Your task to perform on an android device: Open sound settings Image 0: 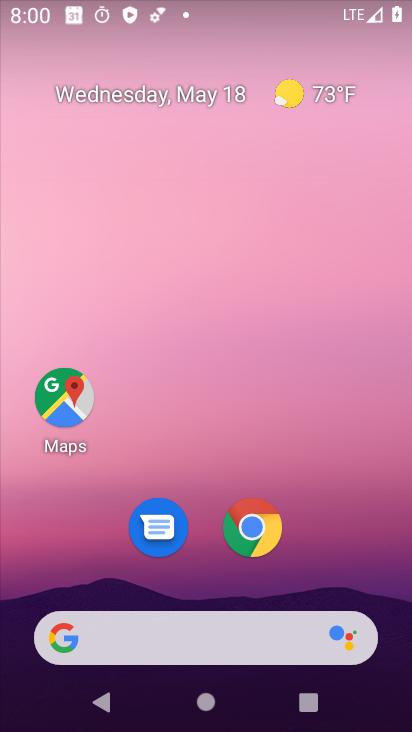
Step 0: drag from (399, 596) to (396, 4)
Your task to perform on an android device: Open sound settings Image 1: 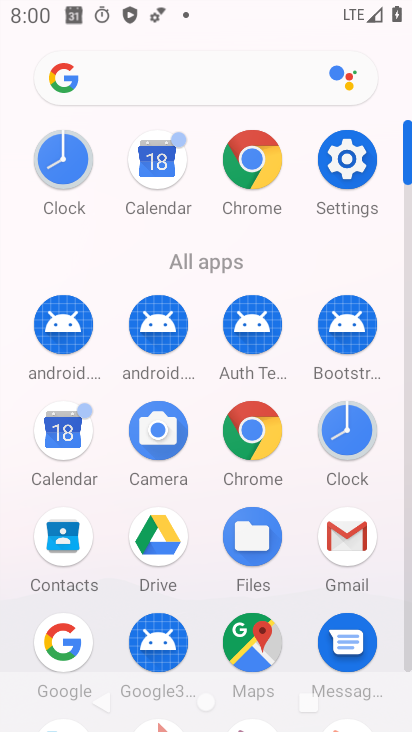
Step 1: click (340, 174)
Your task to perform on an android device: Open sound settings Image 2: 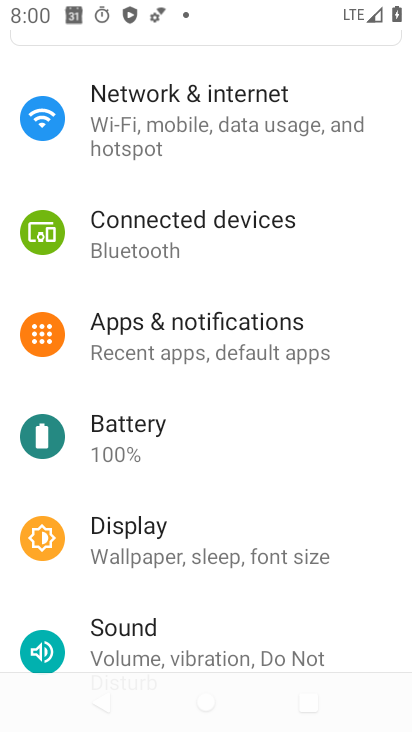
Step 2: click (160, 638)
Your task to perform on an android device: Open sound settings Image 3: 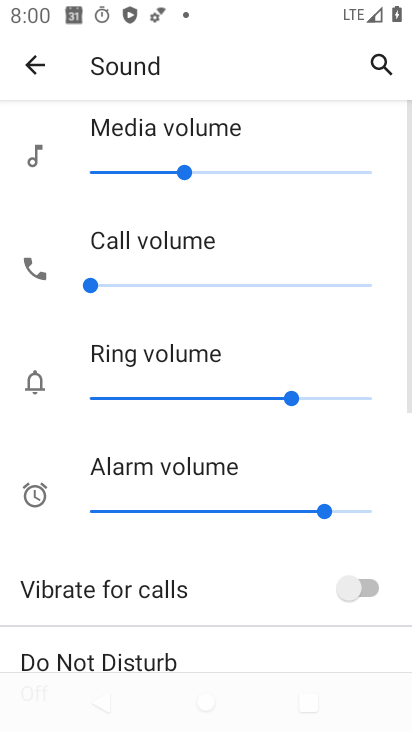
Step 3: task complete